Your task to perform on an android device: turn off sleep mode Image 0: 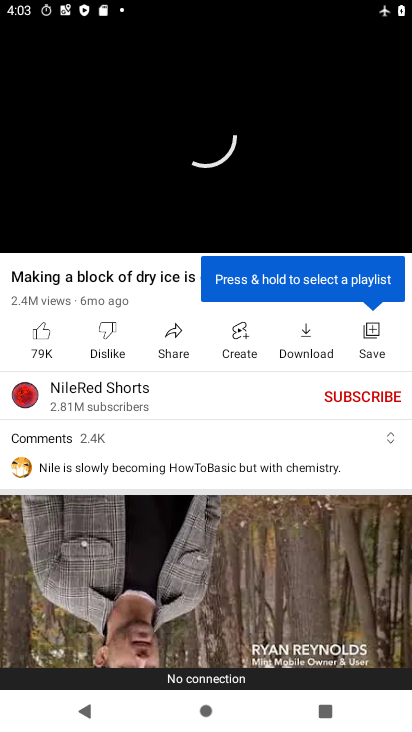
Step 0: press back button
Your task to perform on an android device: turn off sleep mode Image 1: 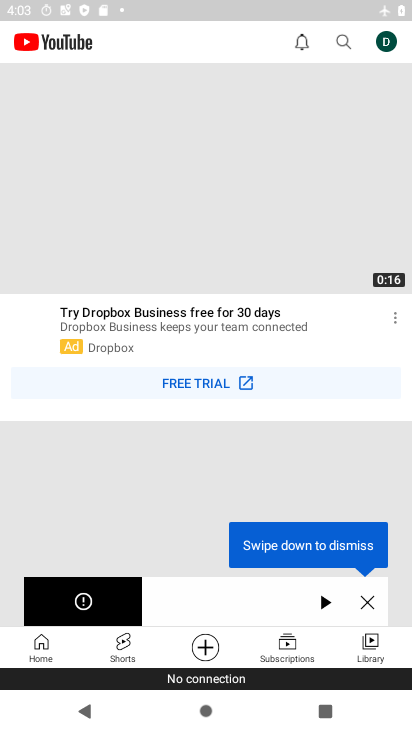
Step 1: press home button
Your task to perform on an android device: turn off sleep mode Image 2: 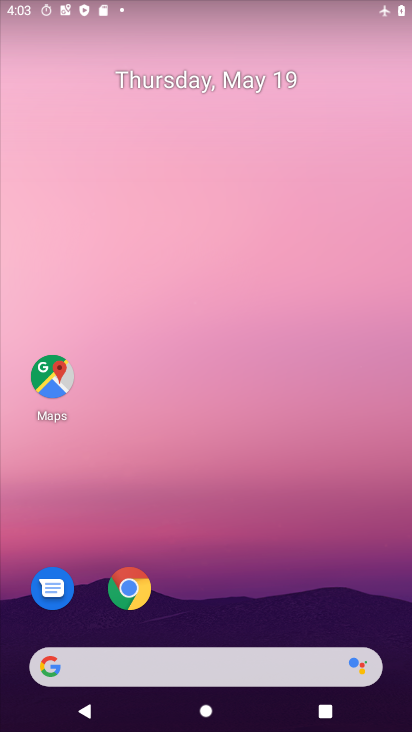
Step 2: drag from (230, 606) to (241, 80)
Your task to perform on an android device: turn off sleep mode Image 3: 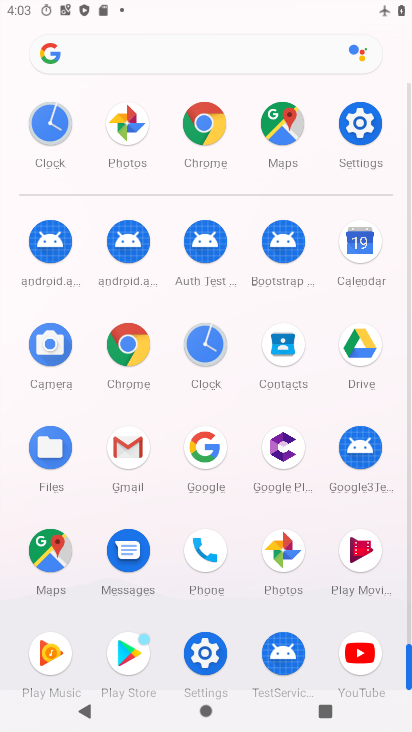
Step 3: click (364, 115)
Your task to perform on an android device: turn off sleep mode Image 4: 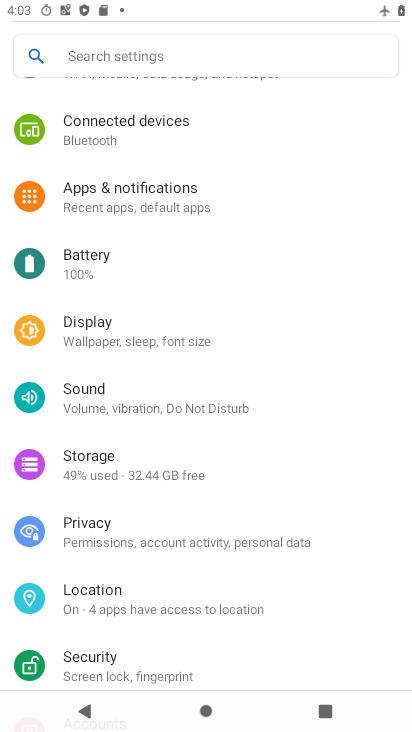
Step 4: click (196, 65)
Your task to perform on an android device: turn off sleep mode Image 5: 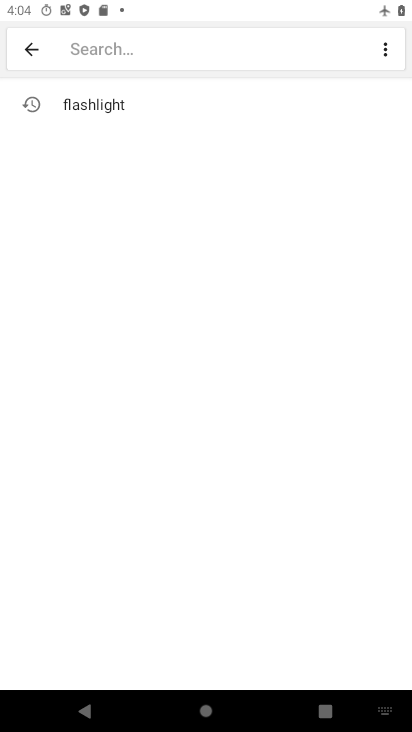
Step 5: type "sleep mode"
Your task to perform on an android device: turn off sleep mode Image 6: 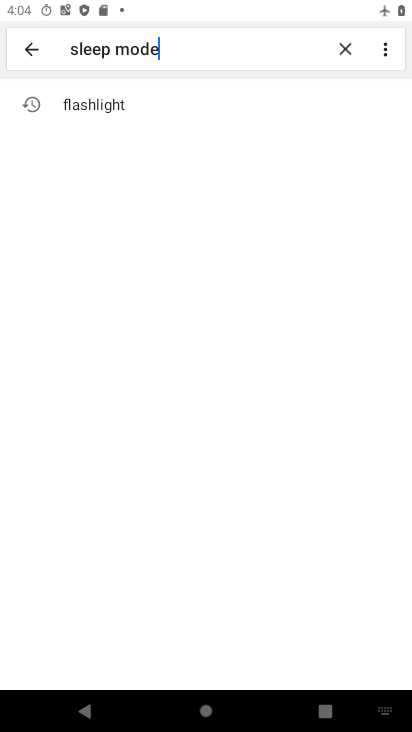
Step 6: task complete